Your task to perform on an android device: delete a single message in the gmail app Image 0: 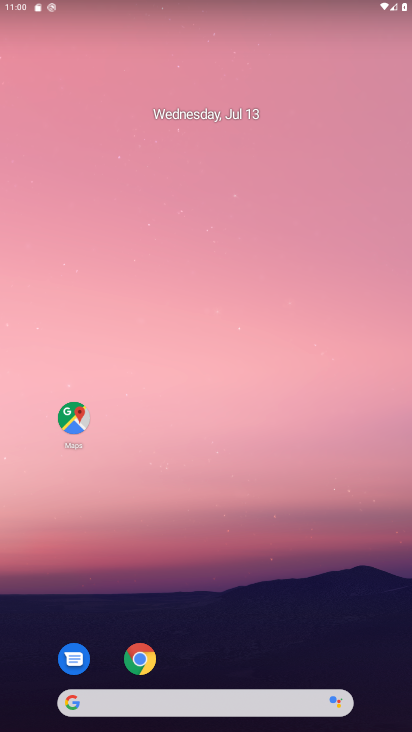
Step 0: drag from (212, 658) to (217, 77)
Your task to perform on an android device: delete a single message in the gmail app Image 1: 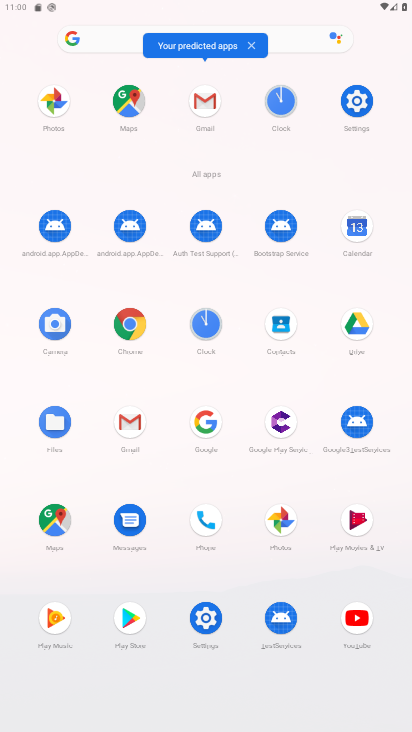
Step 1: click (130, 418)
Your task to perform on an android device: delete a single message in the gmail app Image 2: 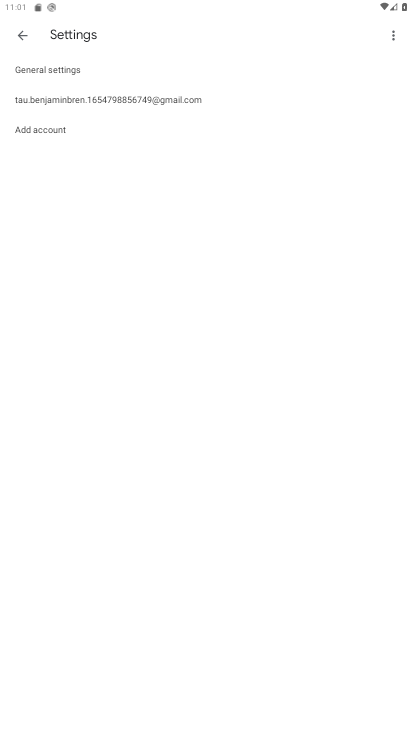
Step 2: click (24, 31)
Your task to perform on an android device: delete a single message in the gmail app Image 3: 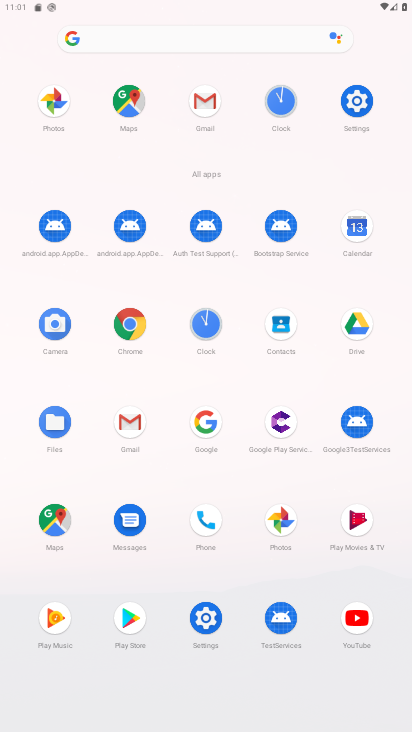
Step 3: click (130, 416)
Your task to perform on an android device: delete a single message in the gmail app Image 4: 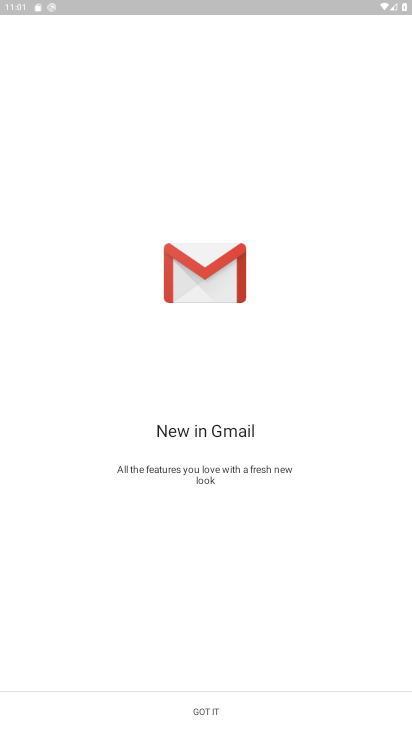
Step 4: click (211, 707)
Your task to perform on an android device: delete a single message in the gmail app Image 5: 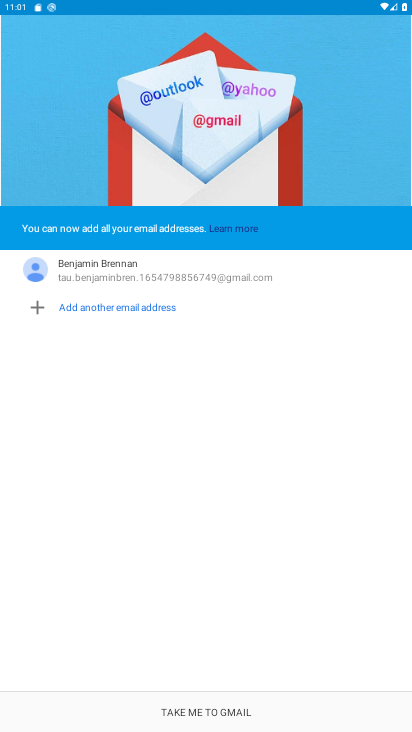
Step 5: click (203, 708)
Your task to perform on an android device: delete a single message in the gmail app Image 6: 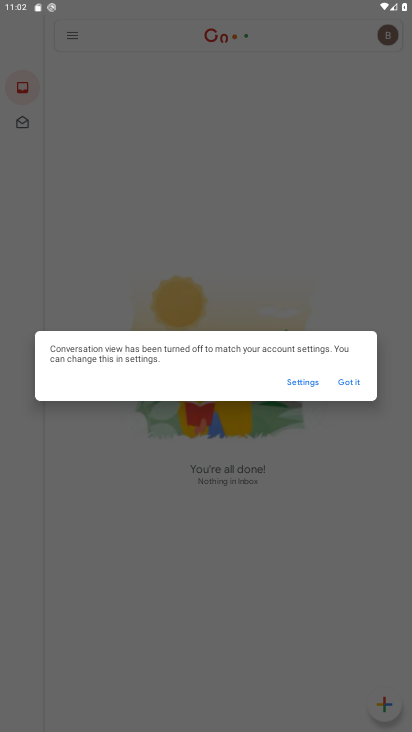
Step 6: click (352, 386)
Your task to perform on an android device: delete a single message in the gmail app Image 7: 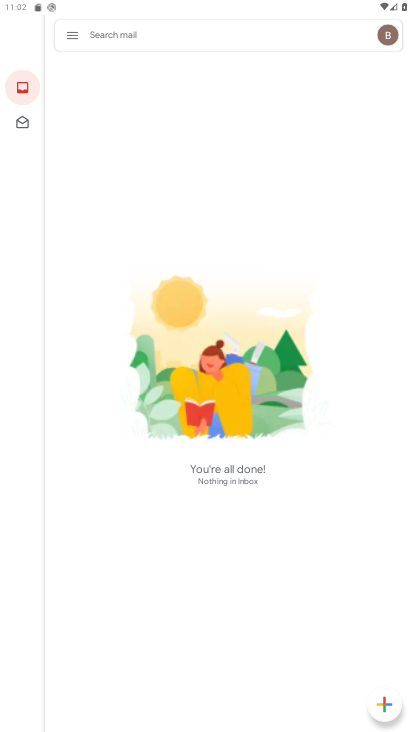
Step 7: task complete